Your task to perform on an android device: Search for Mexican restaurants on Maps Image 0: 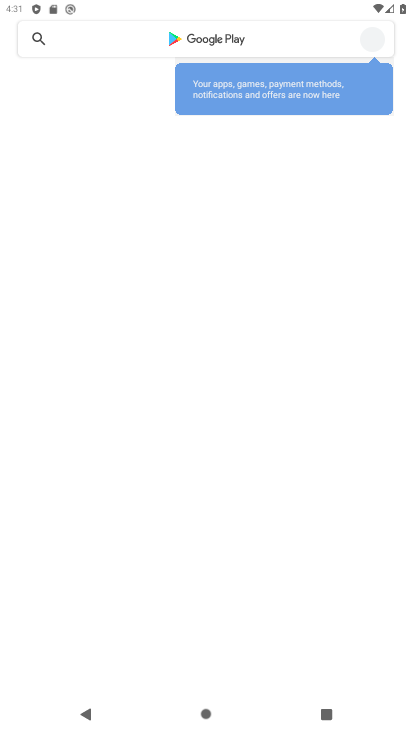
Step 0: press back button
Your task to perform on an android device: Search for Mexican restaurants on Maps Image 1: 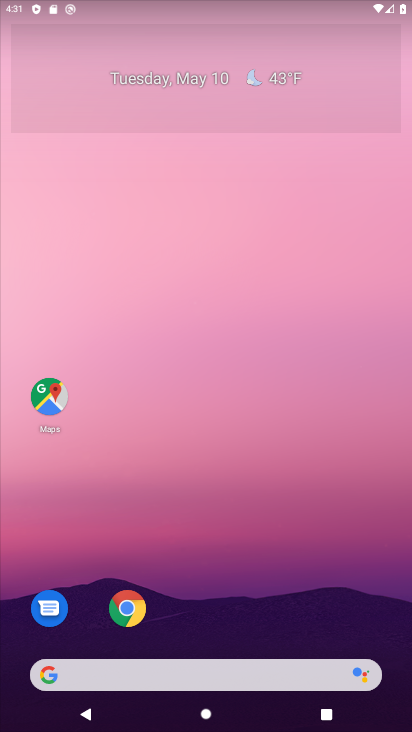
Step 1: drag from (189, 617) to (284, 175)
Your task to perform on an android device: Search for Mexican restaurants on Maps Image 2: 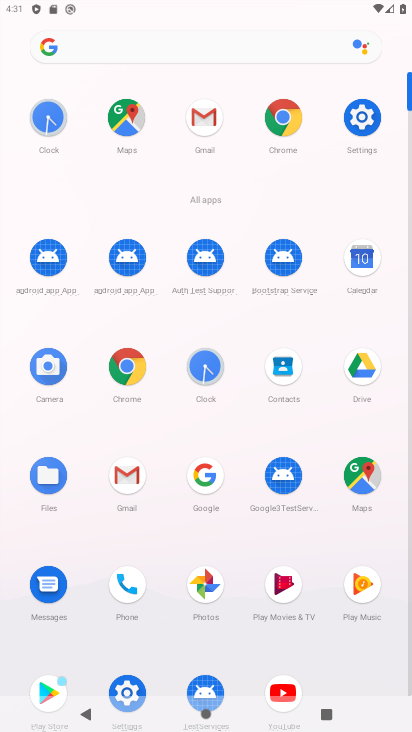
Step 2: click (117, 117)
Your task to perform on an android device: Search for Mexican restaurants on Maps Image 3: 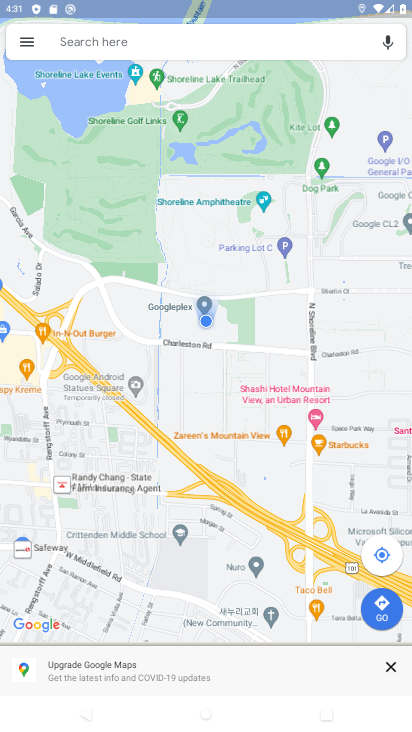
Step 3: click (124, 46)
Your task to perform on an android device: Search for Mexican restaurants on Maps Image 4: 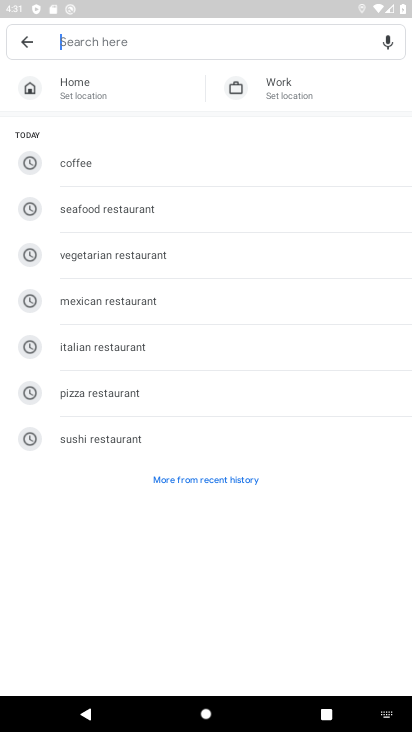
Step 4: click (127, 294)
Your task to perform on an android device: Search for Mexican restaurants on Maps Image 5: 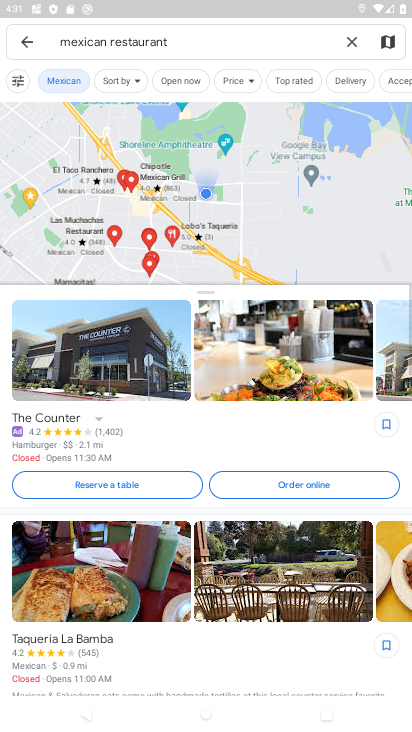
Step 5: task complete